Your task to perform on an android device: change the clock display to show seconds Image 0: 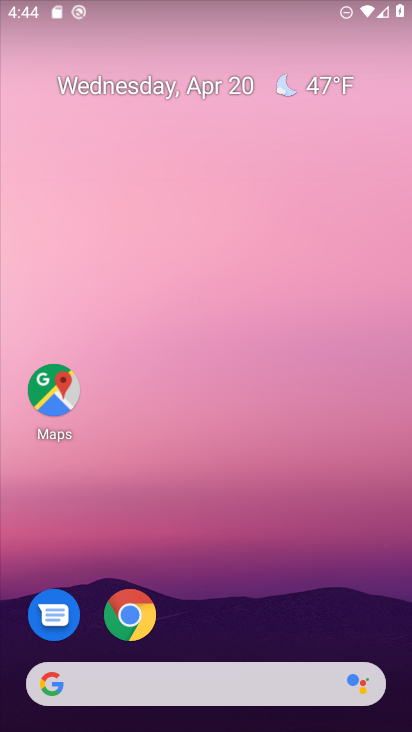
Step 0: drag from (258, 537) to (214, 80)
Your task to perform on an android device: change the clock display to show seconds Image 1: 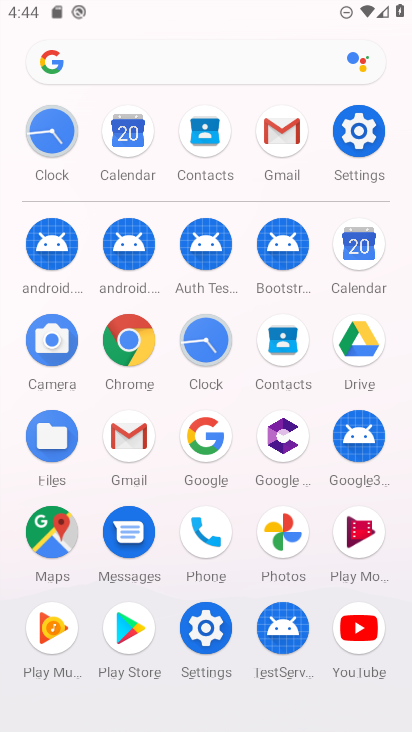
Step 1: click (58, 143)
Your task to perform on an android device: change the clock display to show seconds Image 2: 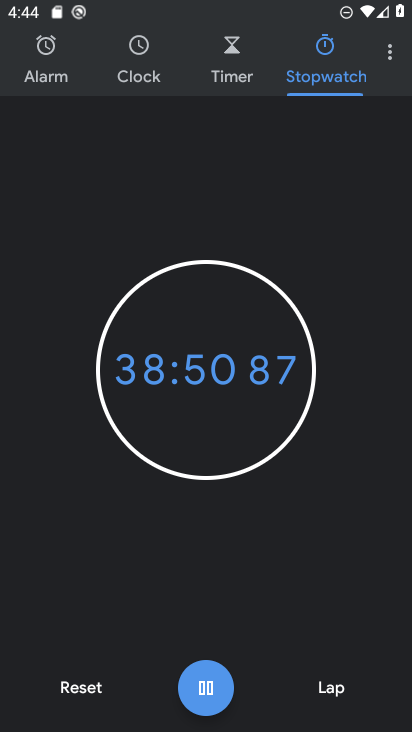
Step 2: click (395, 55)
Your task to perform on an android device: change the clock display to show seconds Image 3: 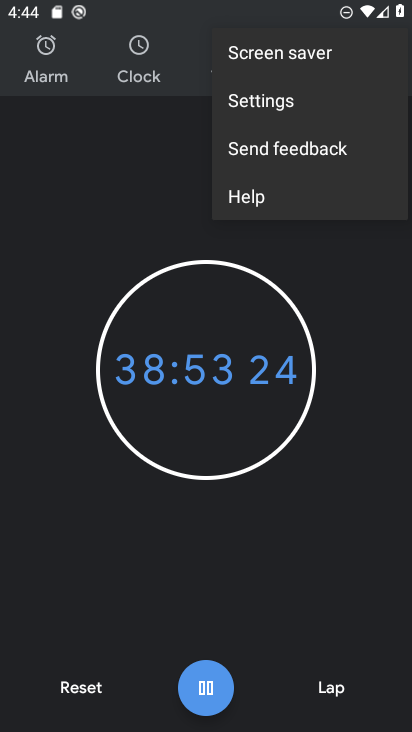
Step 3: click (304, 101)
Your task to perform on an android device: change the clock display to show seconds Image 4: 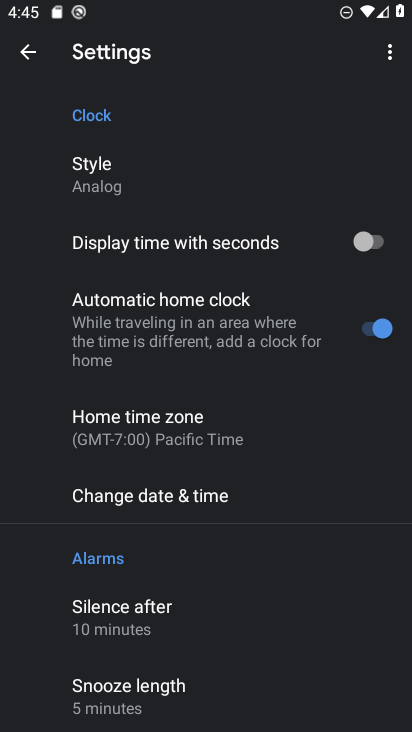
Step 4: click (370, 239)
Your task to perform on an android device: change the clock display to show seconds Image 5: 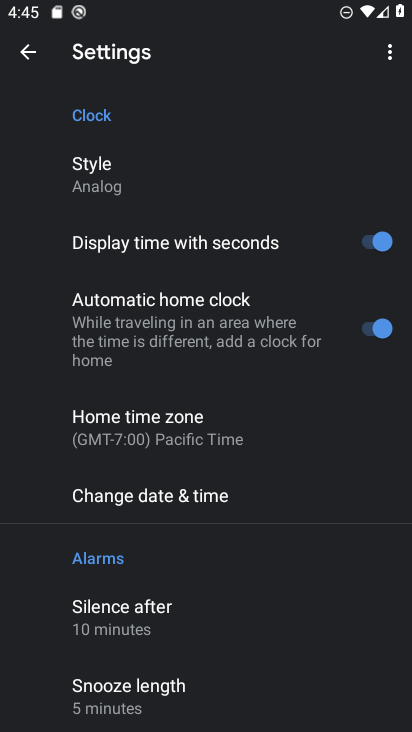
Step 5: task complete